Your task to perform on an android device: Open the web browser Image 0: 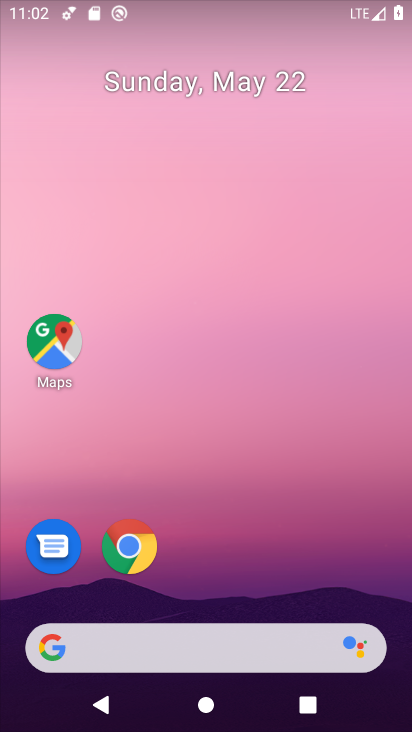
Step 0: drag from (214, 621) to (214, 59)
Your task to perform on an android device: Open the web browser Image 1: 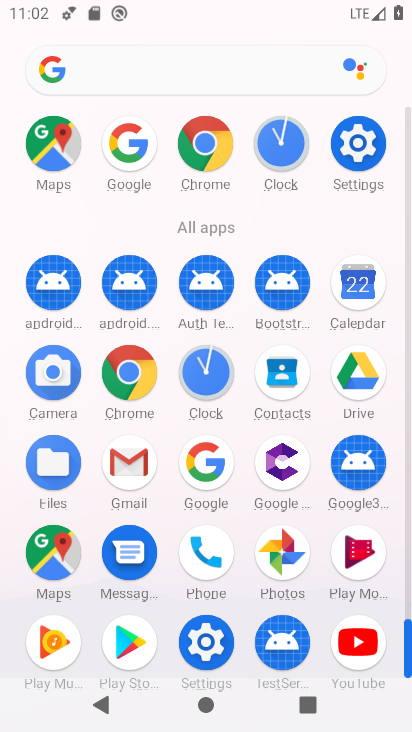
Step 1: drag from (197, 717) to (302, 43)
Your task to perform on an android device: Open the web browser Image 2: 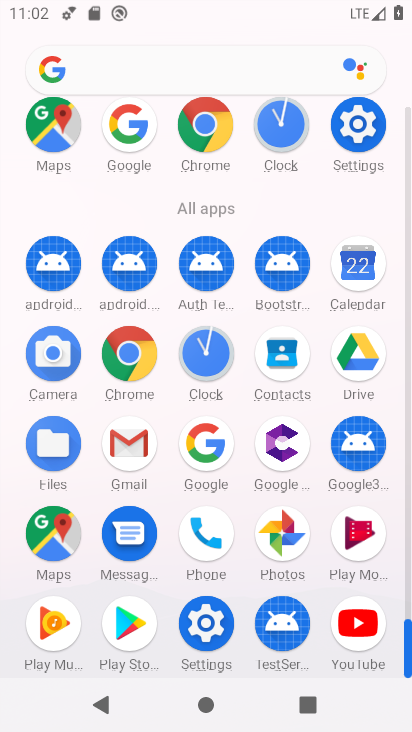
Step 2: press home button
Your task to perform on an android device: Open the web browser Image 3: 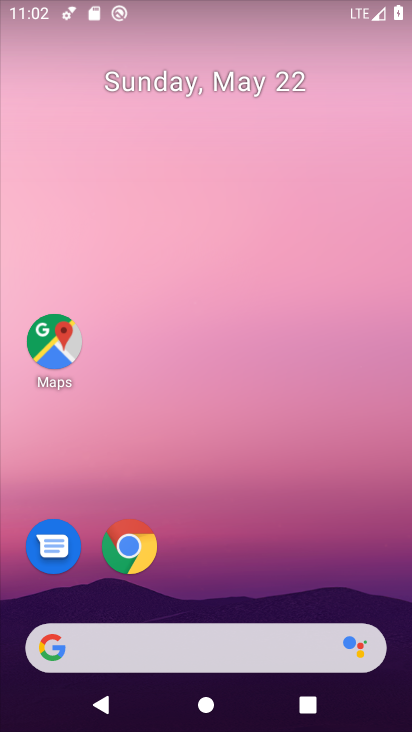
Step 3: drag from (234, 644) to (213, 22)
Your task to perform on an android device: Open the web browser Image 4: 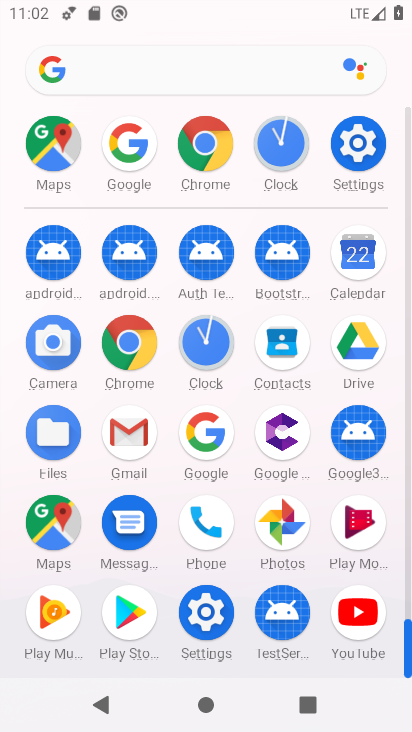
Step 4: click (216, 170)
Your task to perform on an android device: Open the web browser Image 5: 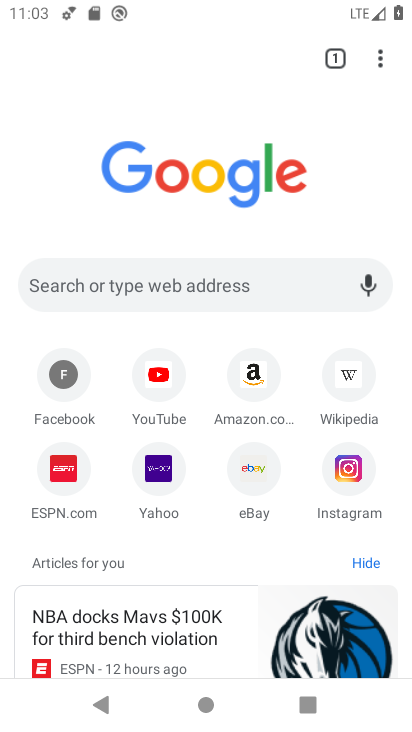
Step 5: task complete